Your task to perform on an android device: change text size in settings app Image 0: 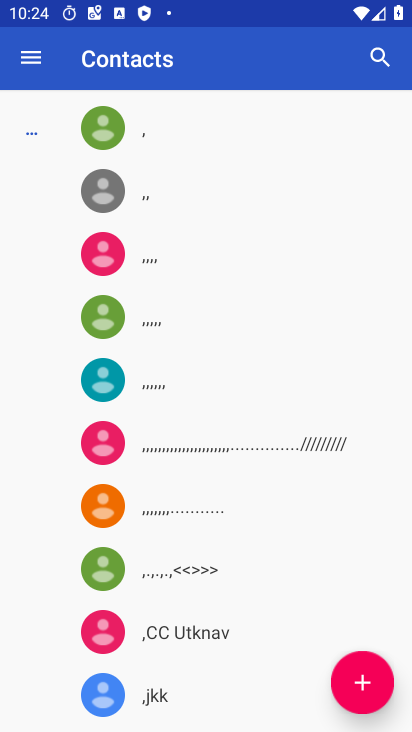
Step 0: press home button
Your task to perform on an android device: change text size in settings app Image 1: 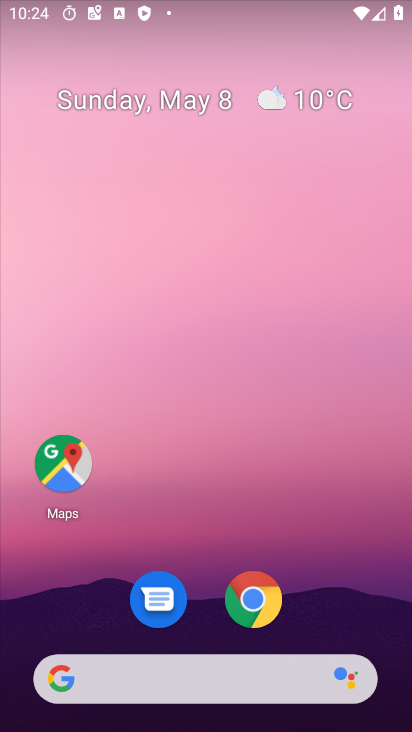
Step 1: drag from (253, 656) to (326, 213)
Your task to perform on an android device: change text size in settings app Image 2: 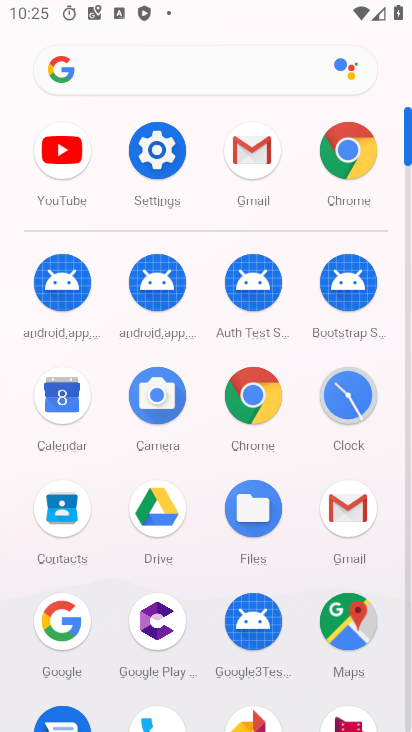
Step 2: click (163, 163)
Your task to perform on an android device: change text size in settings app Image 3: 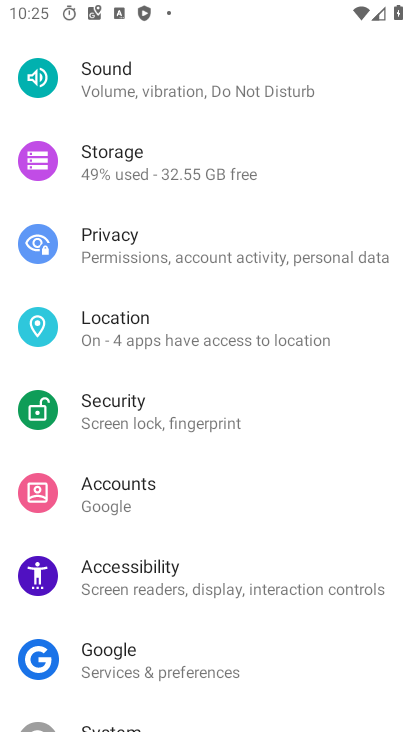
Step 3: drag from (196, 287) to (223, 592)
Your task to perform on an android device: change text size in settings app Image 4: 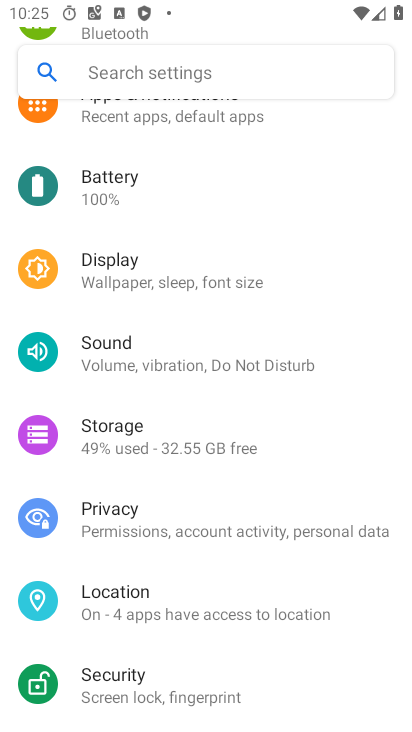
Step 4: drag from (204, 284) to (206, 539)
Your task to perform on an android device: change text size in settings app Image 5: 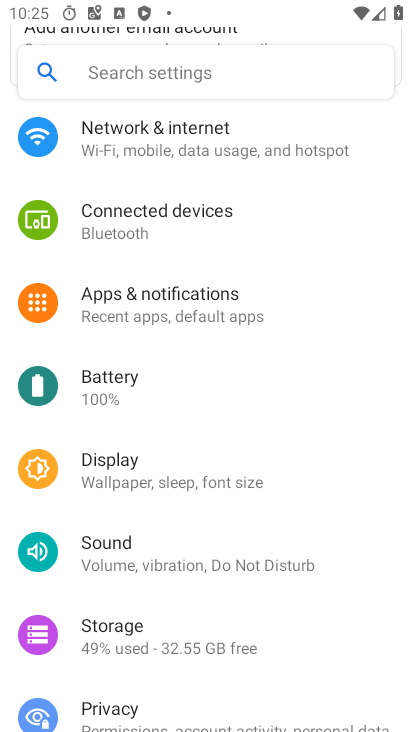
Step 5: click (204, 487)
Your task to perform on an android device: change text size in settings app Image 6: 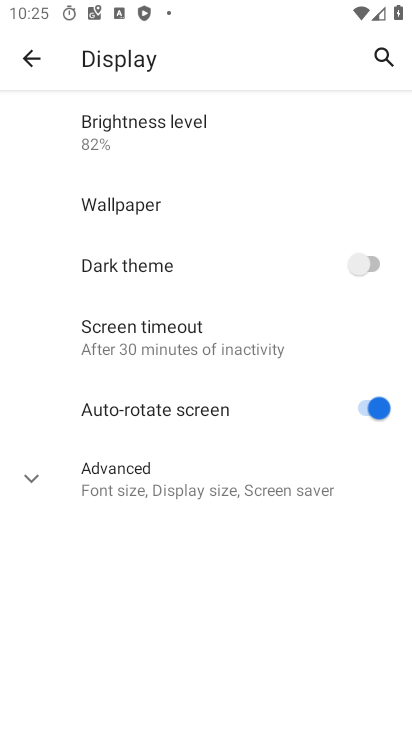
Step 6: click (204, 487)
Your task to perform on an android device: change text size in settings app Image 7: 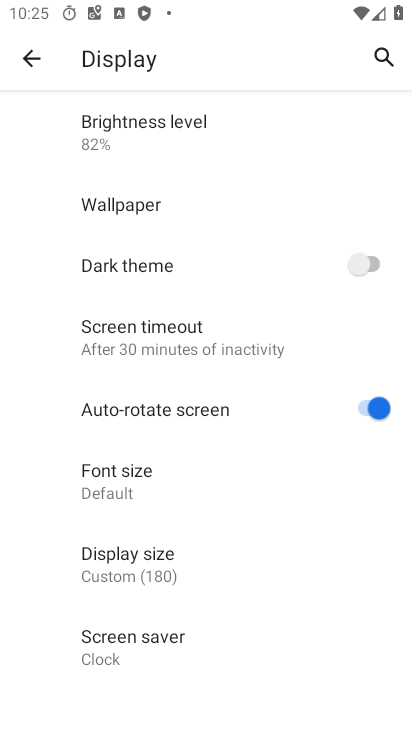
Step 7: click (203, 488)
Your task to perform on an android device: change text size in settings app Image 8: 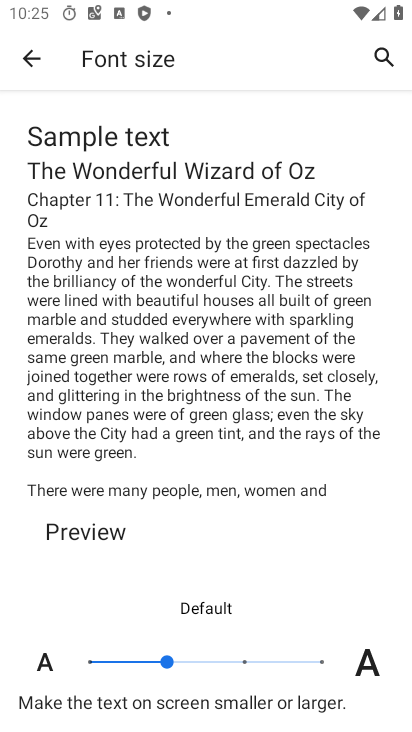
Step 8: click (237, 655)
Your task to perform on an android device: change text size in settings app Image 9: 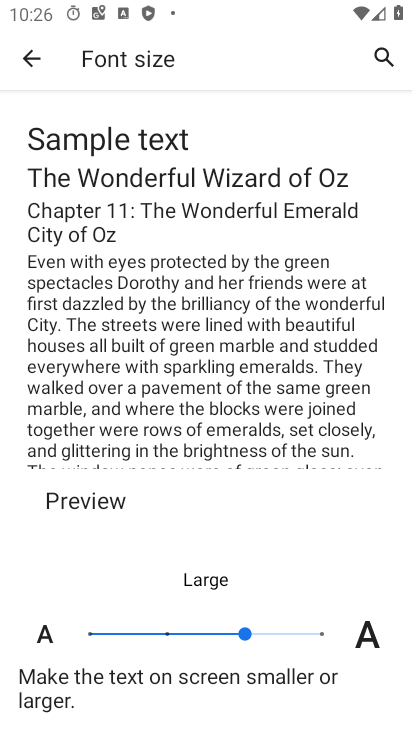
Step 9: task complete